Your task to perform on an android device: Open notification settings Image 0: 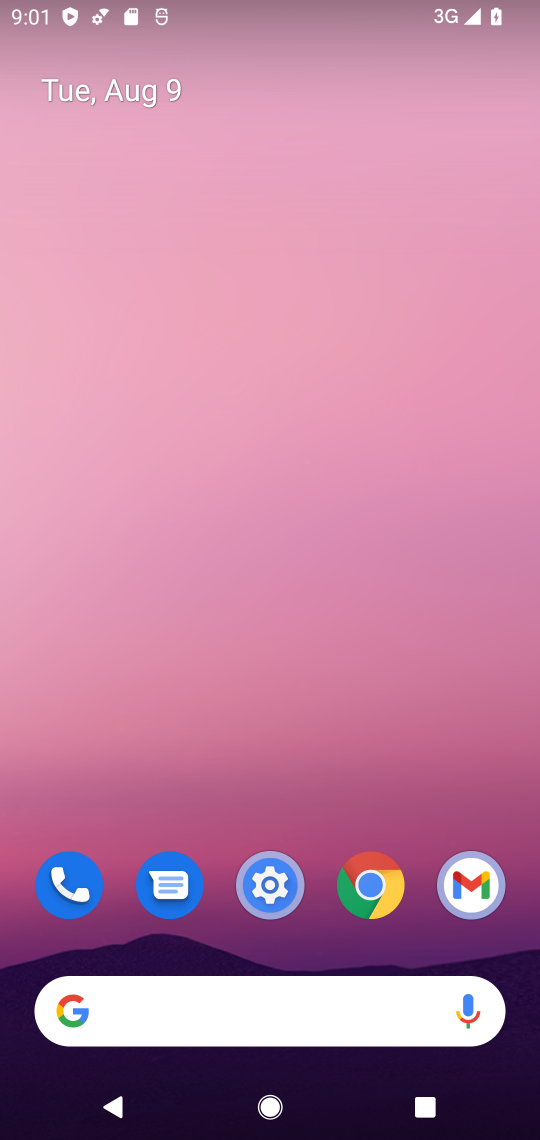
Step 0: press home button
Your task to perform on an android device: Open notification settings Image 1: 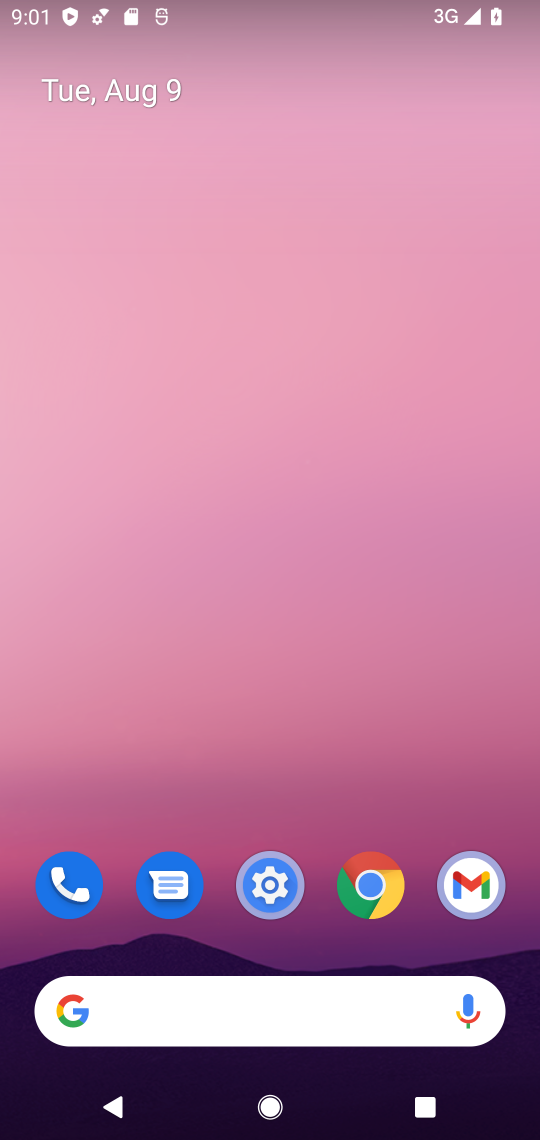
Step 1: click (263, 876)
Your task to perform on an android device: Open notification settings Image 2: 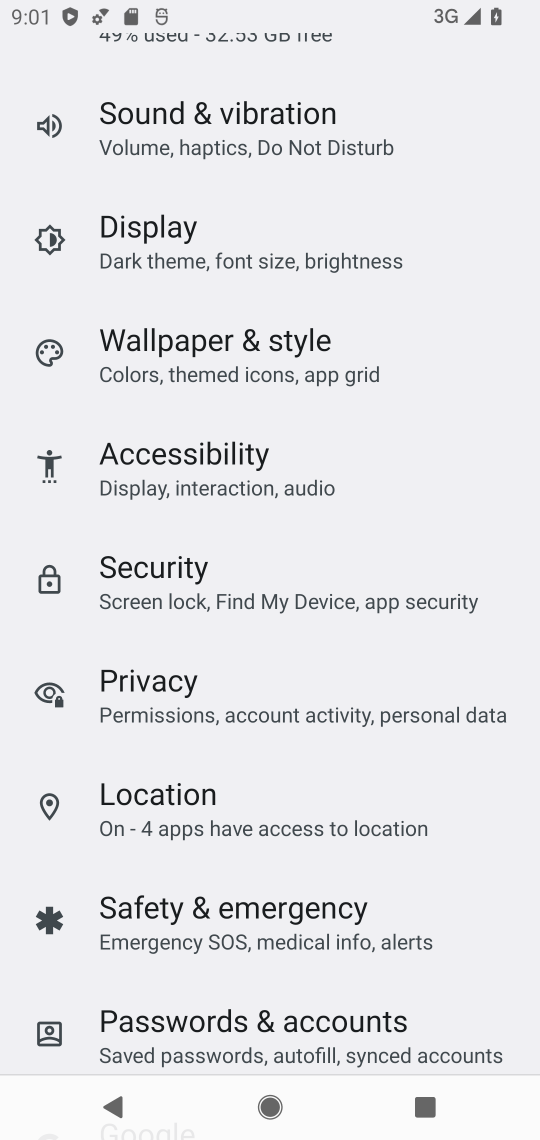
Step 2: drag from (212, 195) to (242, 816)
Your task to perform on an android device: Open notification settings Image 3: 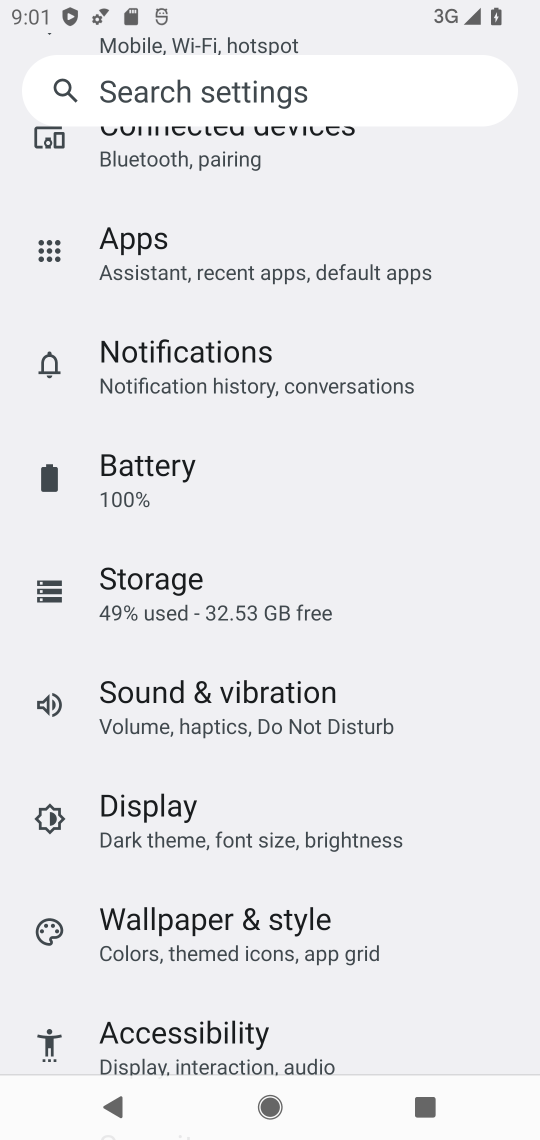
Step 3: click (74, 350)
Your task to perform on an android device: Open notification settings Image 4: 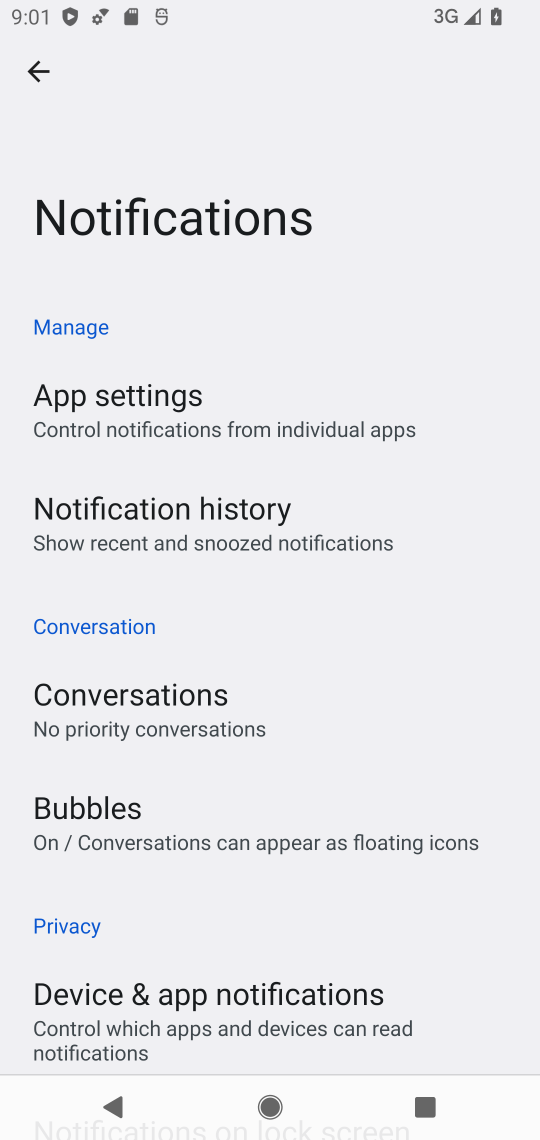
Step 4: task complete